Your task to perform on an android device: search for starred emails in the gmail app Image 0: 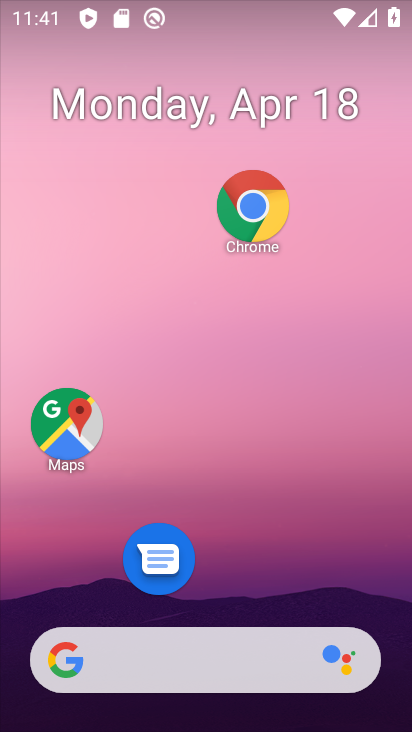
Step 0: drag from (245, 437) to (215, 47)
Your task to perform on an android device: search for starred emails in the gmail app Image 1: 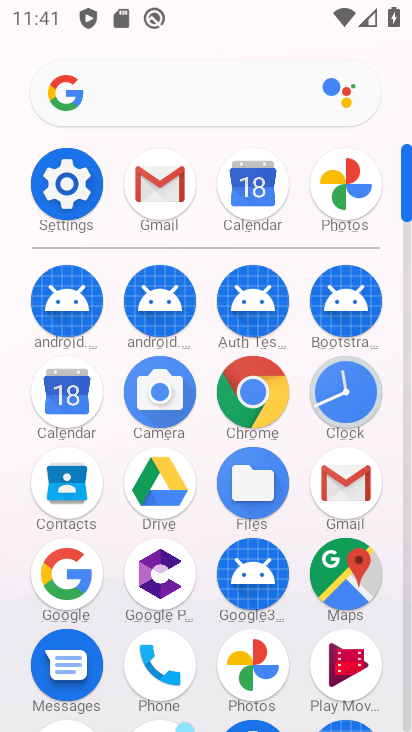
Step 1: click (336, 492)
Your task to perform on an android device: search for starred emails in the gmail app Image 2: 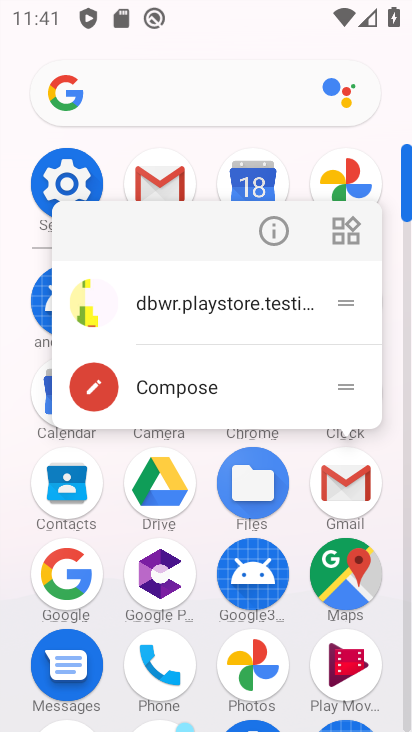
Step 2: click (336, 492)
Your task to perform on an android device: search for starred emails in the gmail app Image 3: 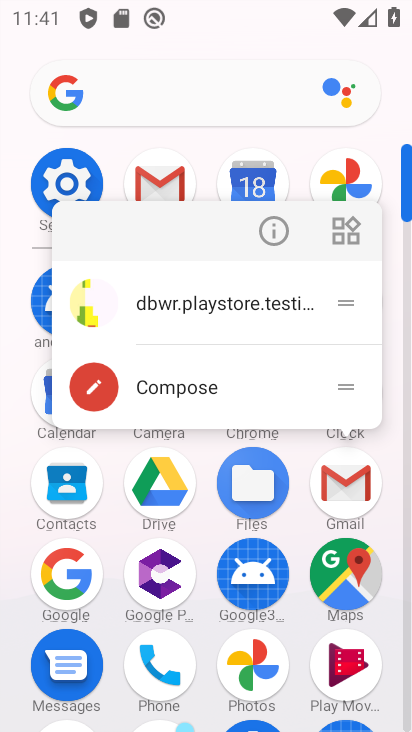
Step 3: click (356, 495)
Your task to perform on an android device: search for starred emails in the gmail app Image 4: 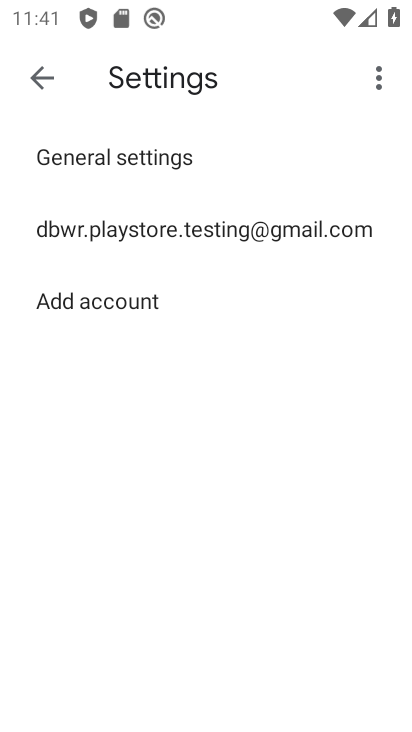
Step 4: press back button
Your task to perform on an android device: search for starred emails in the gmail app Image 5: 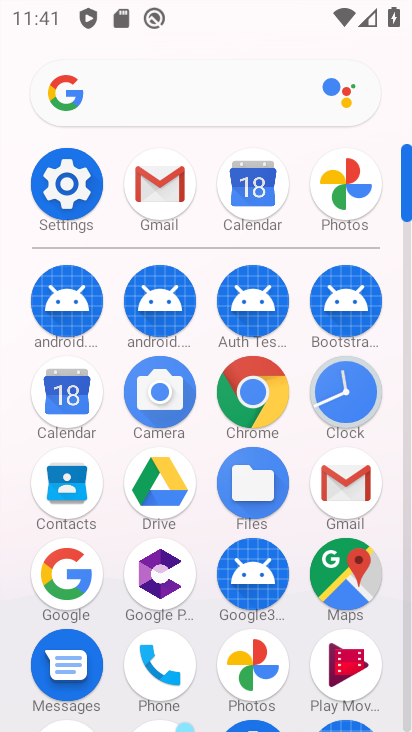
Step 5: click (360, 498)
Your task to perform on an android device: search for starred emails in the gmail app Image 6: 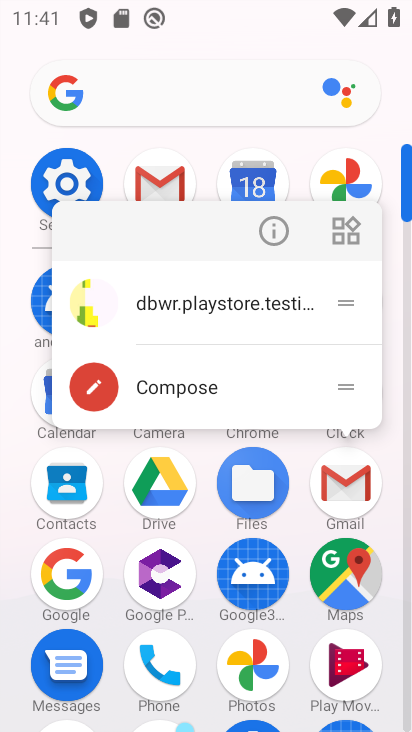
Step 6: click (331, 468)
Your task to perform on an android device: search for starred emails in the gmail app Image 7: 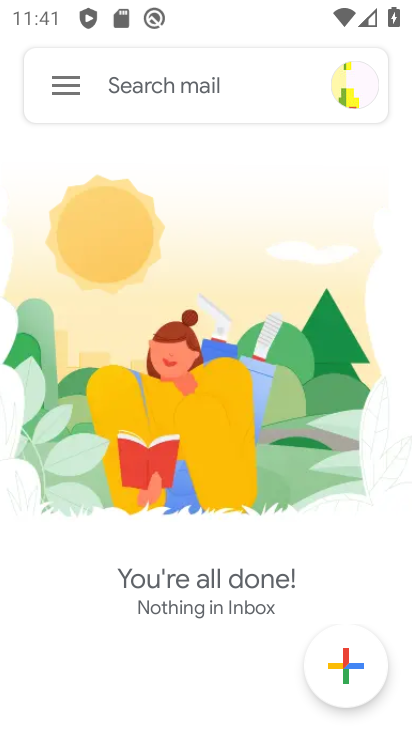
Step 7: click (68, 84)
Your task to perform on an android device: search for starred emails in the gmail app Image 8: 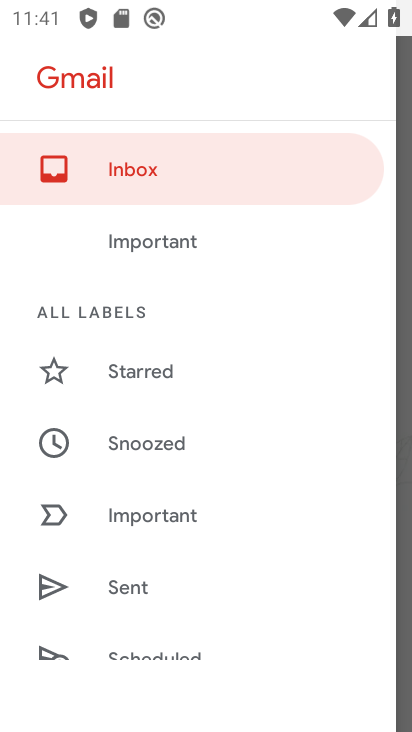
Step 8: click (154, 368)
Your task to perform on an android device: search for starred emails in the gmail app Image 9: 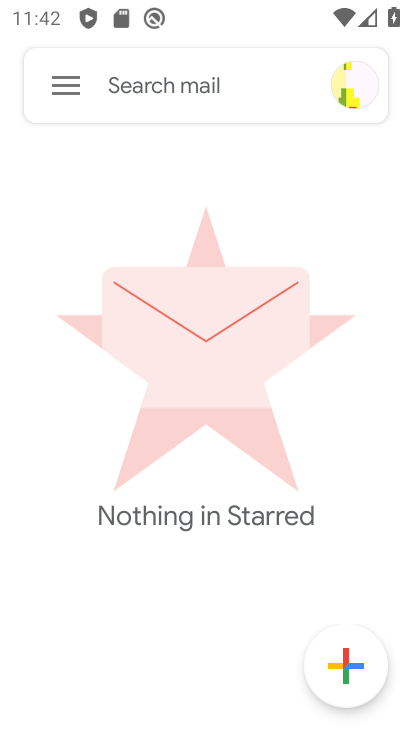
Step 9: task complete